Your task to perform on an android device: Go to Yahoo.com Image 0: 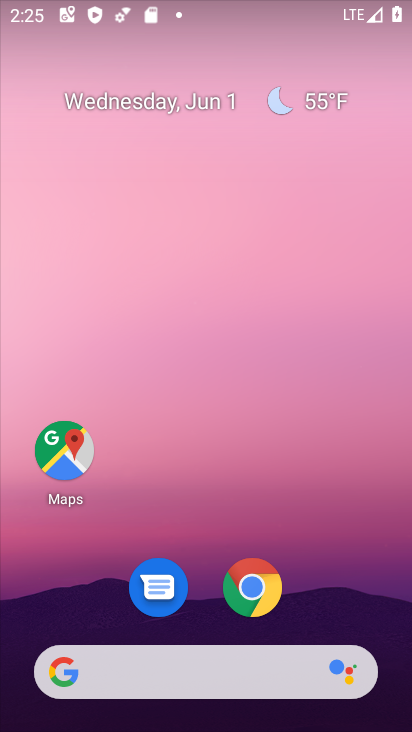
Step 0: click (245, 580)
Your task to perform on an android device: Go to Yahoo.com Image 1: 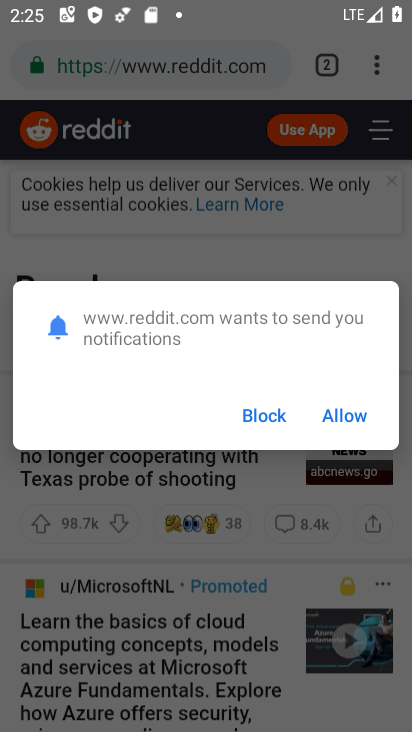
Step 1: click (346, 404)
Your task to perform on an android device: Go to Yahoo.com Image 2: 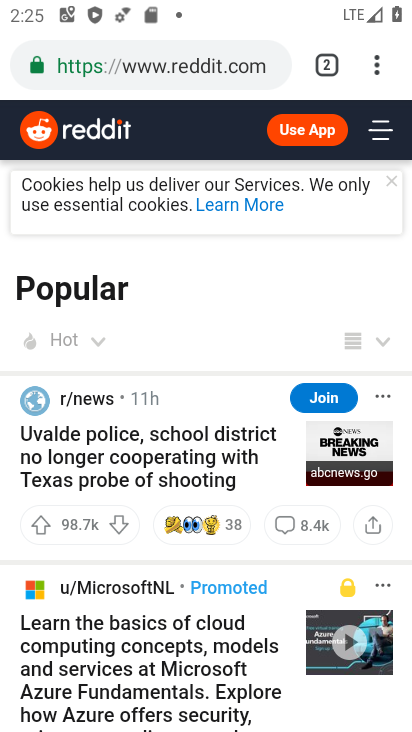
Step 2: click (226, 83)
Your task to perform on an android device: Go to Yahoo.com Image 3: 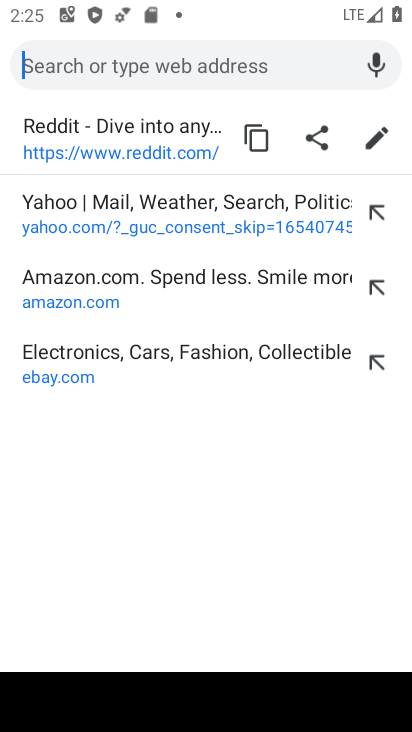
Step 3: click (198, 202)
Your task to perform on an android device: Go to Yahoo.com Image 4: 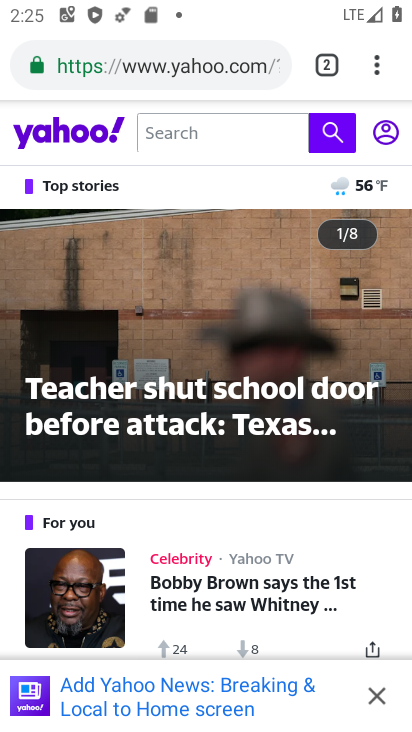
Step 4: task complete